Your task to perform on an android device: Open Google Chrome and open the bookmarks view Image 0: 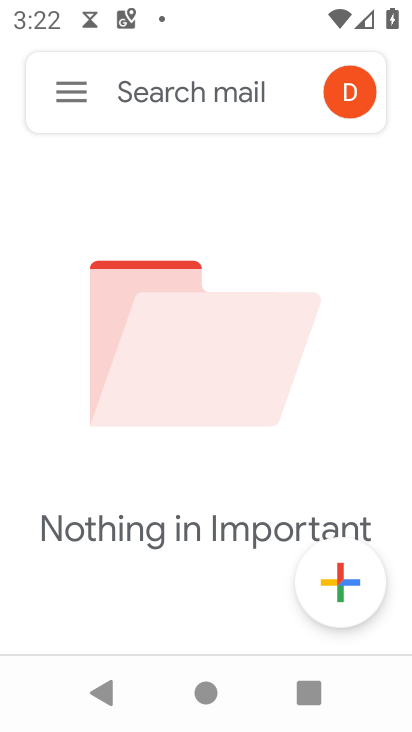
Step 0: press home button
Your task to perform on an android device: Open Google Chrome and open the bookmarks view Image 1: 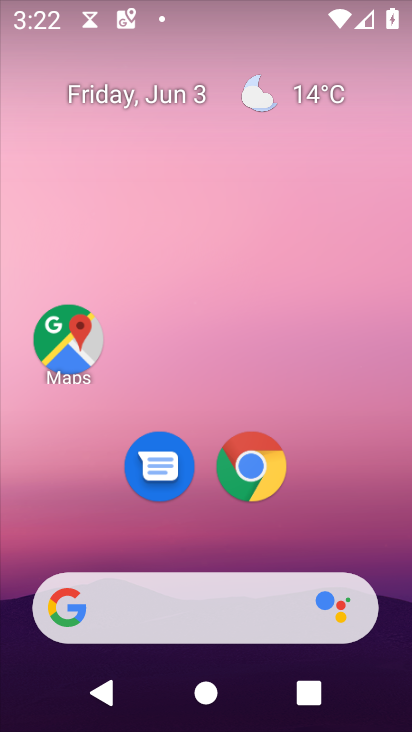
Step 1: click (241, 472)
Your task to perform on an android device: Open Google Chrome and open the bookmarks view Image 2: 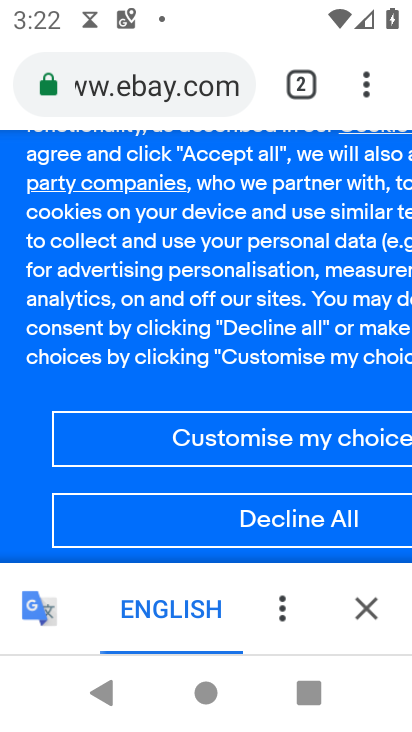
Step 2: click (368, 61)
Your task to perform on an android device: Open Google Chrome and open the bookmarks view Image 3: 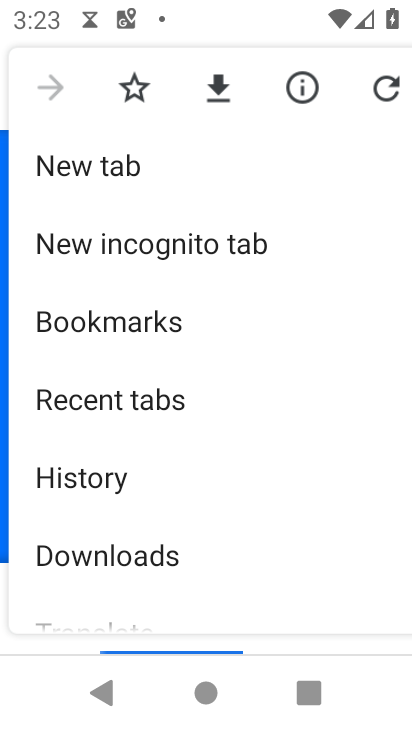
Step 3: click (168, 302)
Your task to perform on an android device: Open Google Chrome and open the bookmarks view Image 4: 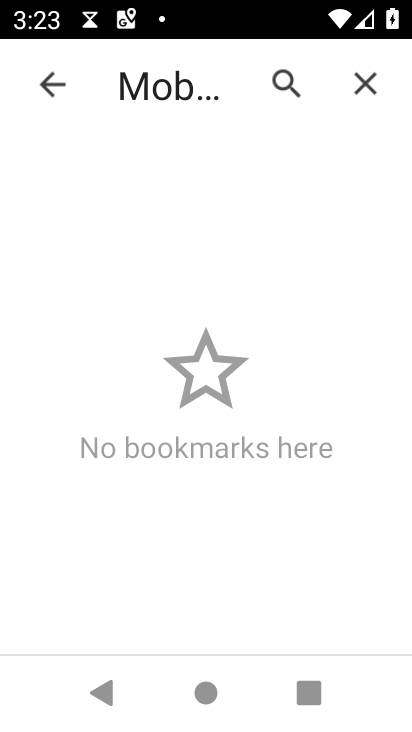
Step 4: task complete